Your task to perform on an android device: Open sound settings Image 0: 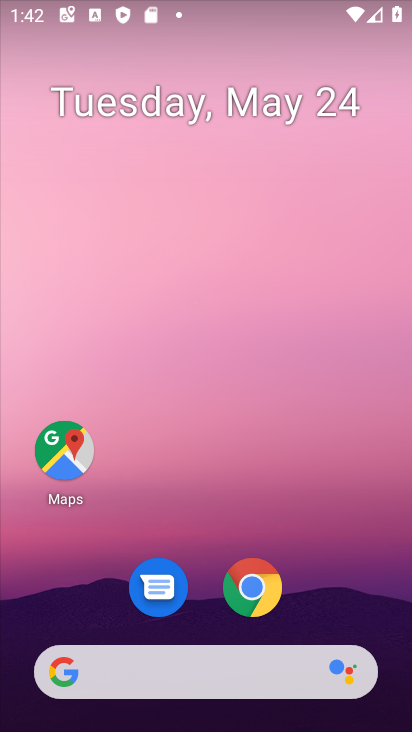
Step 0: drag from (147, 722) to (149, 196)
Your task to perform on an android device: Open sound settings Image 1: 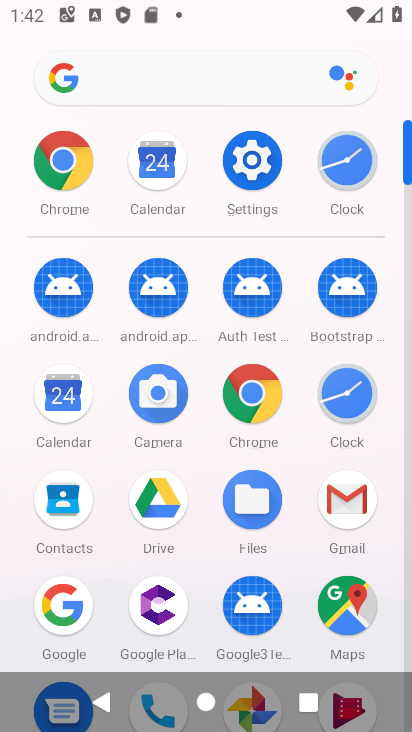
Step 1: click (262, 178)
Your task to perform on an android device: Open sound settings Image 2: 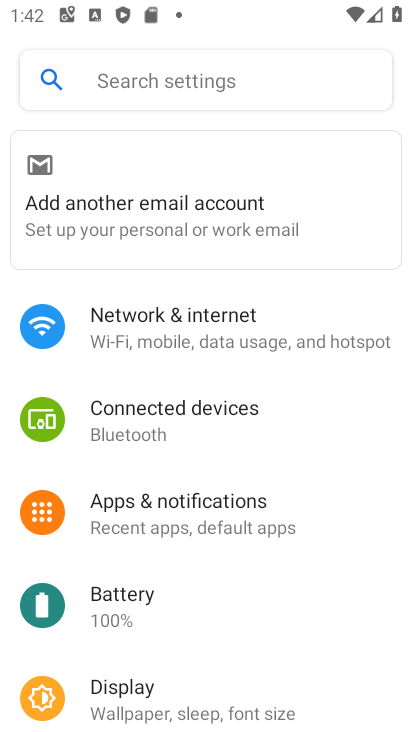
Step 2: drag from (227, 662) to (184, 148)
Your task to perform on an android device: Open sound settings Image 3: 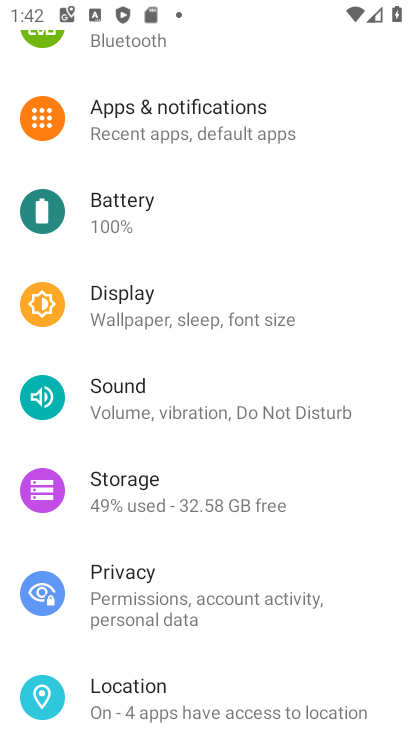
Step 3: click (235, 405)
Your task to perform on an android device: Open sound settings Image 4: 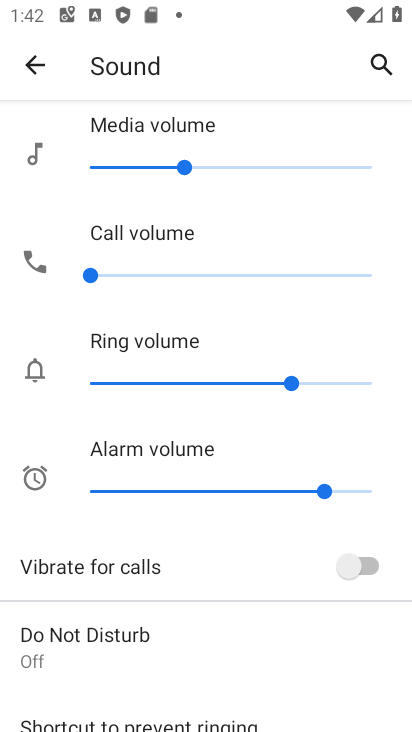
Step 4: task complete